Your task to perform on an android device: turn on javascript in the chrome app Image 0: 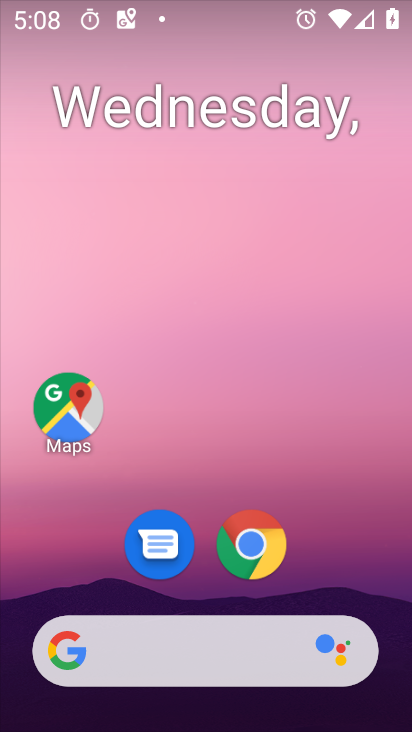
Step 0: click (246, 562)
Your task to perform on an android device: turn on javascript in the chrome app Image 1: 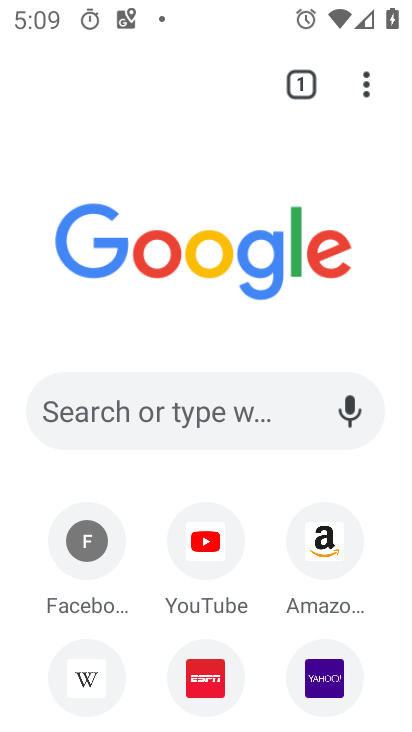
Step 1: click (367, 87)
Your task to perform on an android device: turn on javascript in the chrome app Image 2: 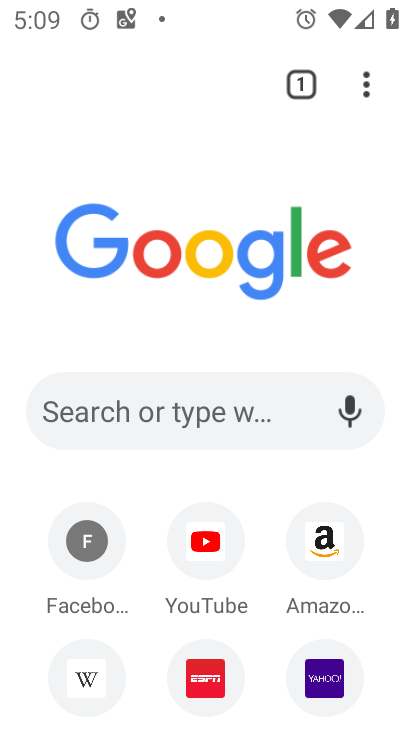
Step 2: click (360, 88)
Your task to perform on an android device: turn on javascript in the chrome app Image 3: 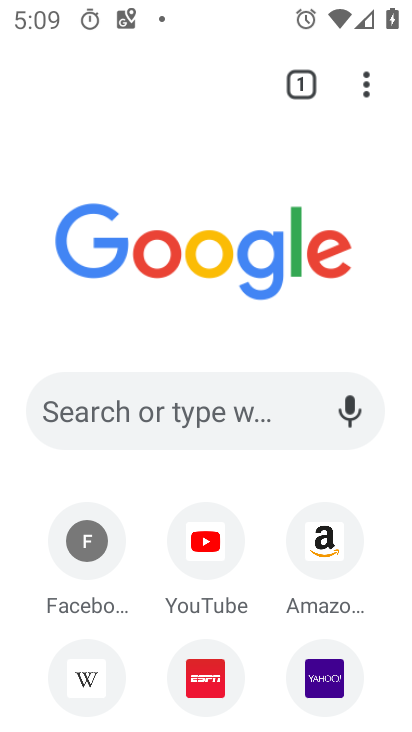
Step 3: click (366, 90)
Your task to perform on an android device: turn on javascript in the chrome app Image 4: 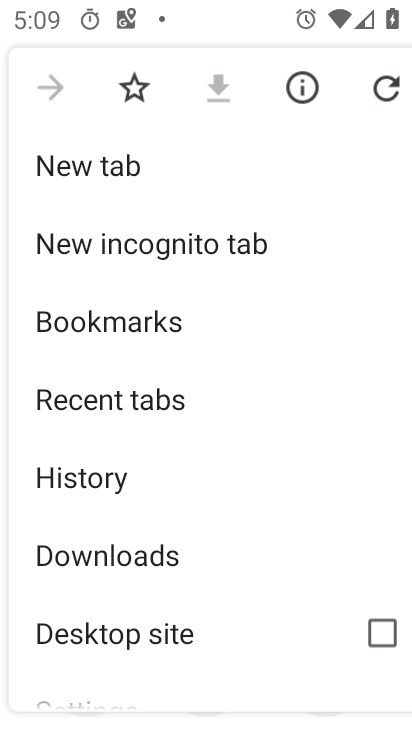
Step 4: drag from (183, 608) to (174, 273)
Your task to perform on an android device: turn on javascript in the chrome app Image 5: 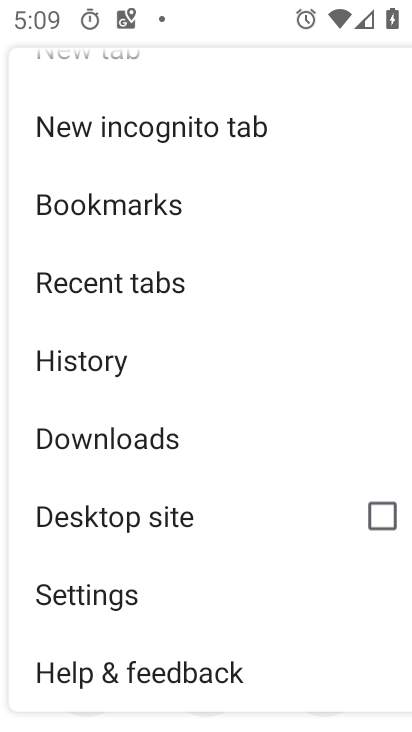
Step 5: click (119, 594)
Your task to perform on an android device: turn on javascript in the chrome app Image 6: 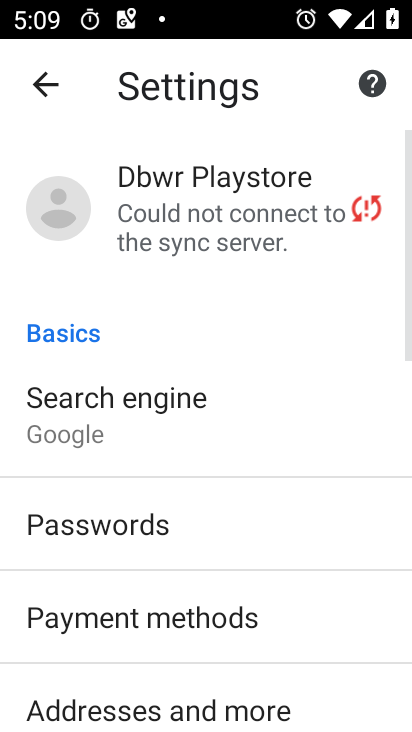
Step 6: drag from (178, 703) to (200, 319)
Your task to perform on an android device: turn on javascript in the chrome app Image 7: 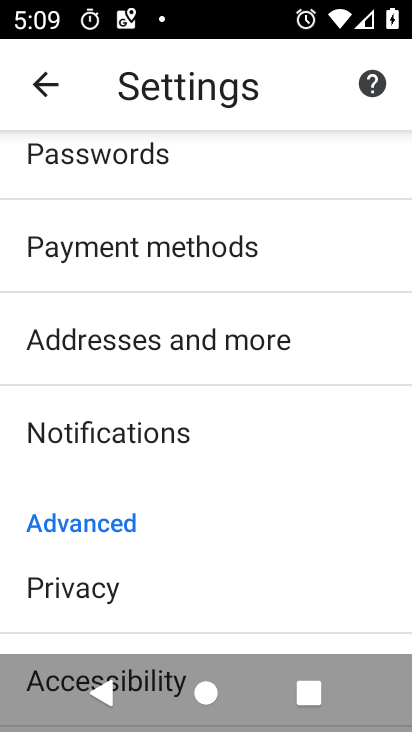
Step 7: drag from (103, 636) to (103, 353)
Your task to perform on an android device: turn on javascript in the chrome app Image 8: 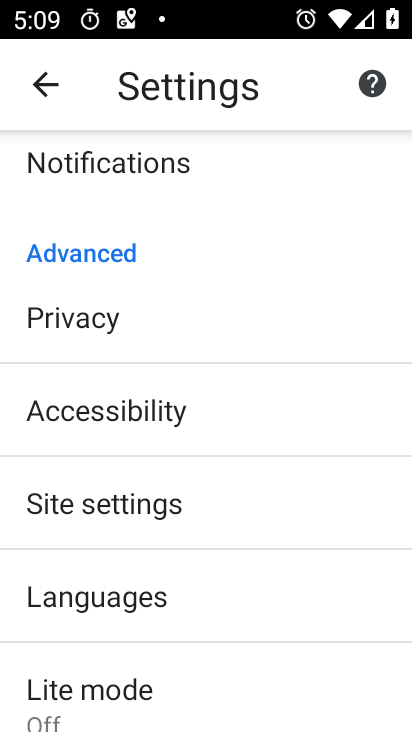
Step 8: click (94, 502)
Your task to perform on an android device: turn on javascript in the chrome app Image 9: 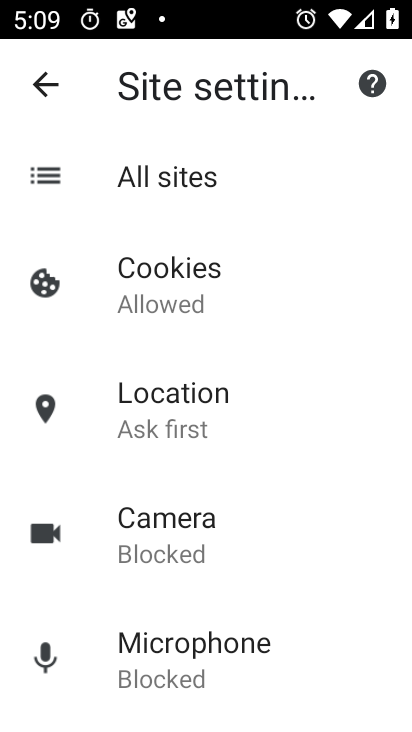
Step 9: drag from (206, 686) to (212, 352)
Your task to perform on an android device: turn on javascript in the chrome app Image 10: 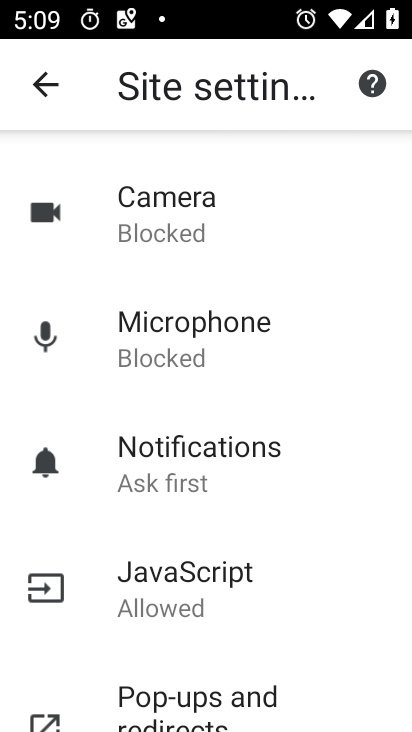
Step 10: click (191, 593)
Your task to perform on an android device: turn on javascript in the chrome app Image 11: 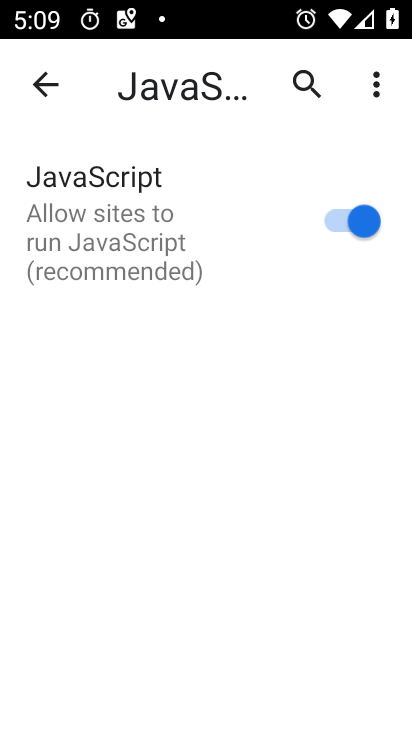
Step 11: task complete